Your task to perform on an android device: Open calendar and show me the first week of next month Image 0: 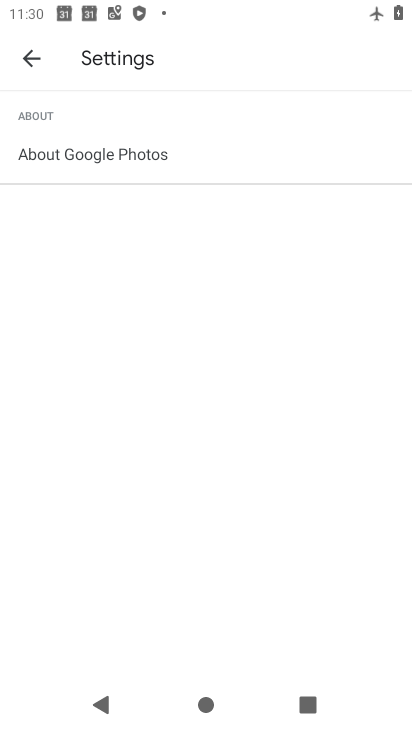
Step 0: press home button
Your task to perform on an android device: Open calendar and show me the first week of next month Image 1: 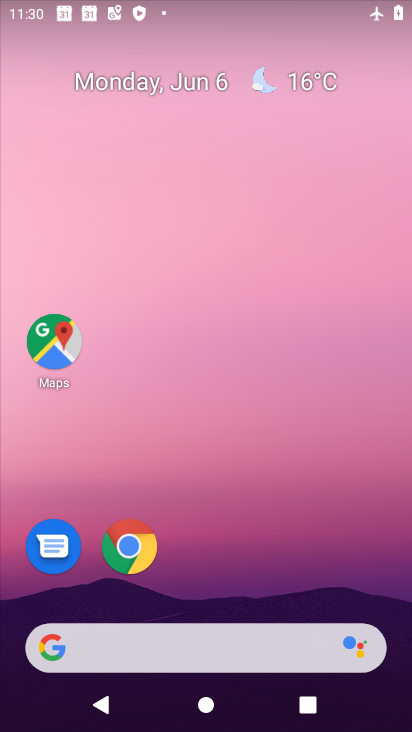
Step 1: drag from (326, 547) to (234, 161)
Your task to perform on an android device: Open calendar and show me the first week of next month Image 2: 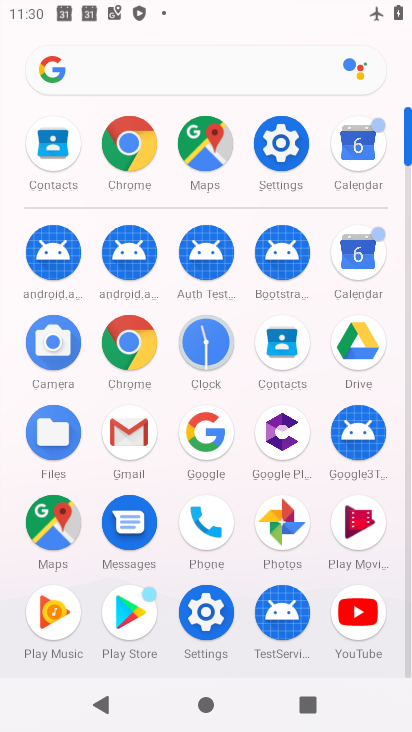
Step 2: click (360, 146)
Your task to perform on an android device: Open calendar and show me the first week of next month Image 3: 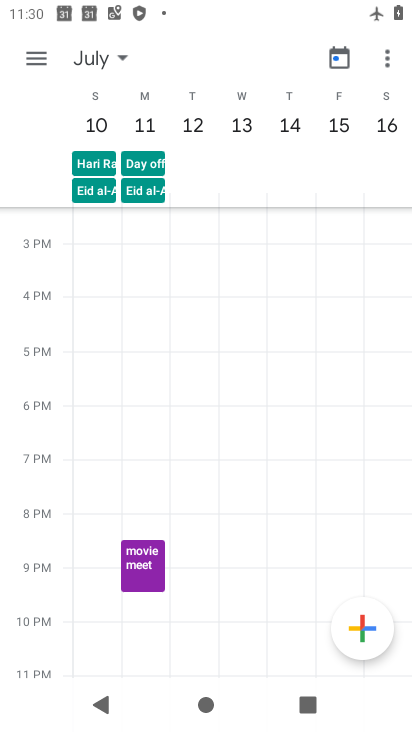
Step 3: click (96, 67)
Your task to perform on an android device: Open calendar and show me the first week of next month Image 4: 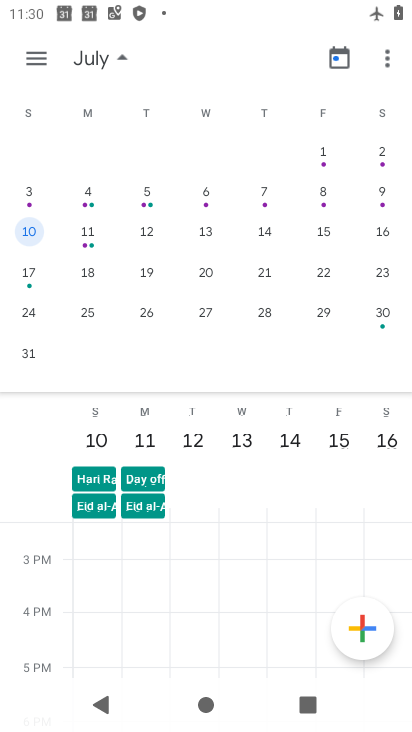
Step 4: click (34, 188)
Your task to perform on an android device: Open calendar and show me the first week of next month Image 5: 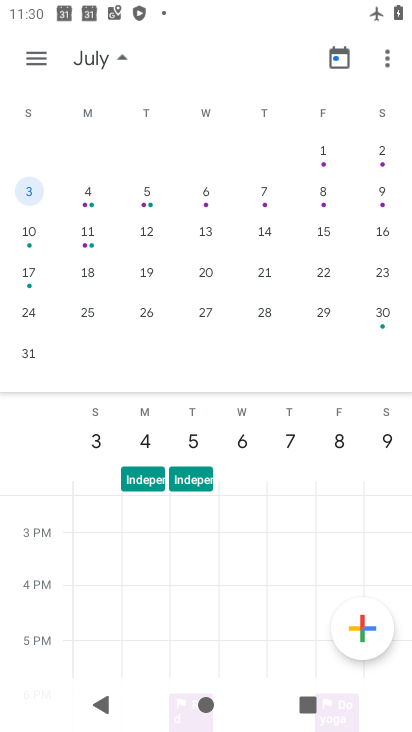
Step 5: task complete